Your task to perform on an android device: What's the weather today? Image 0: 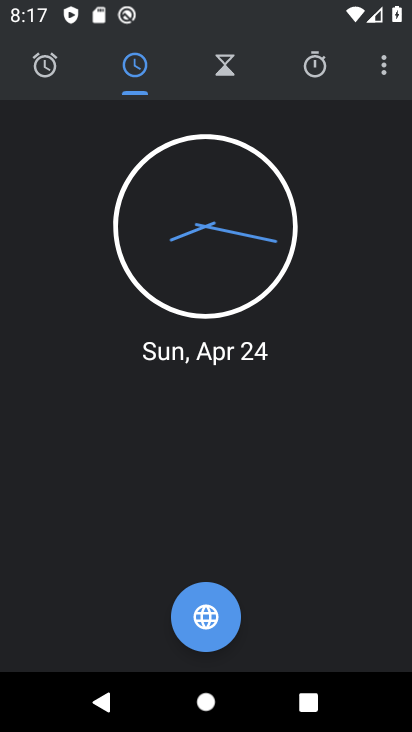
Step 0: press home button
Your task to perform on an android device: What's the weather today? Image 1: 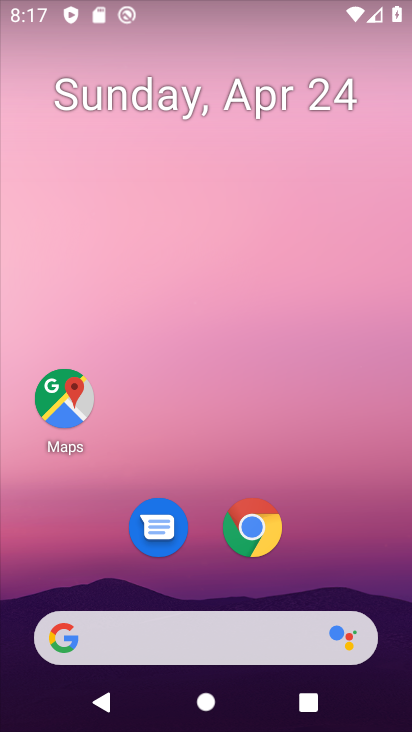
Step 1: click (166, 618)
Your task to perform on an android device: What's the weather today? Image 2: 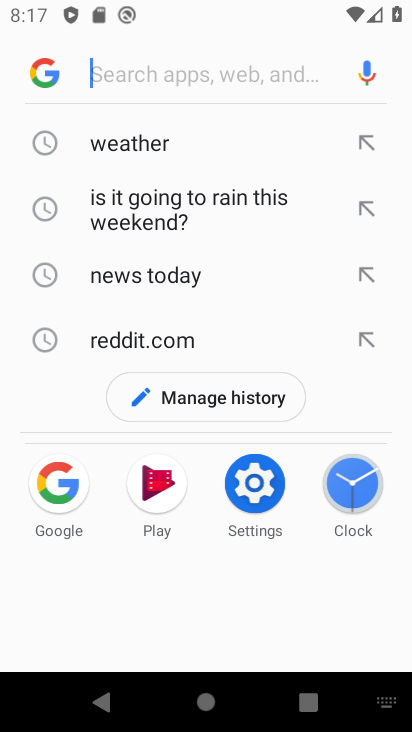
Step 2: click (172, 139)
Your task to perform on an android device: What's the weather today? Image 3: 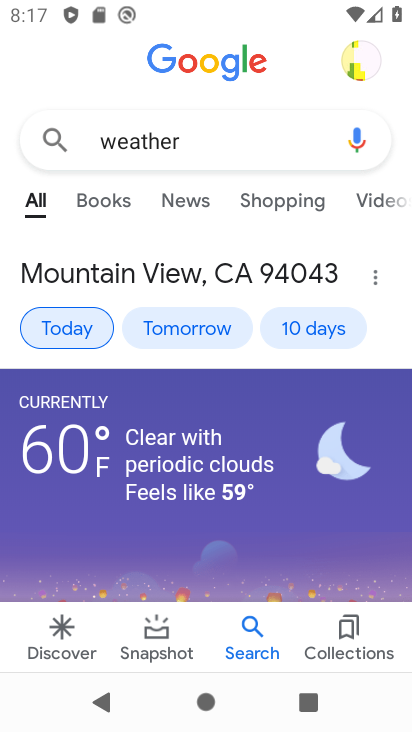
Step 3: click (294, 327)
Your task to perform on an android device: What's the weather today? Image 4: 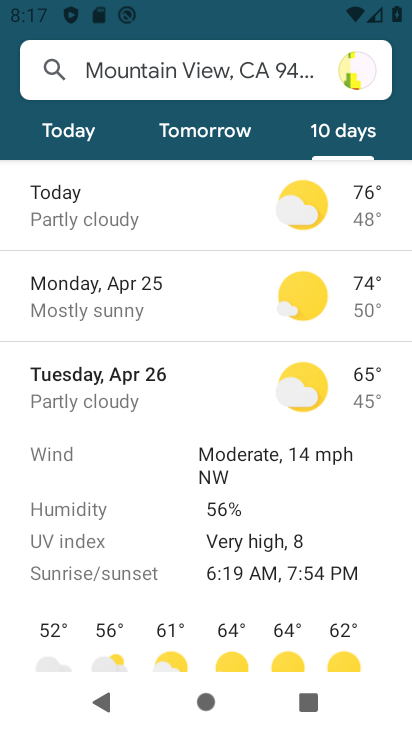
Step 4: click (148, 288)
Your task to perform on an android device: What's the weather today? Image 5: 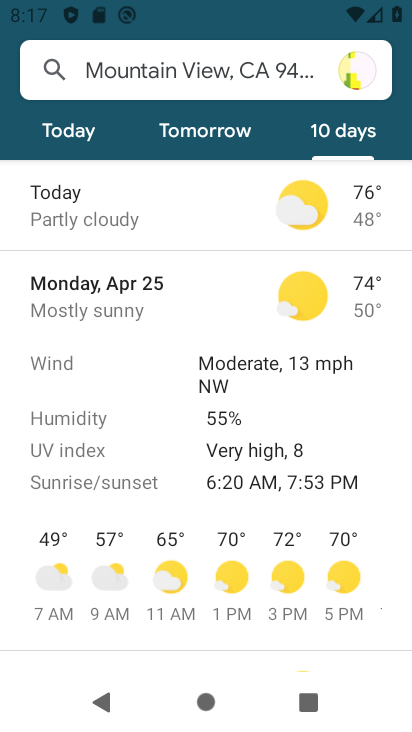
Step 5: task complete